Your task to perform on an android device: Toggle the flashlight Image 0: 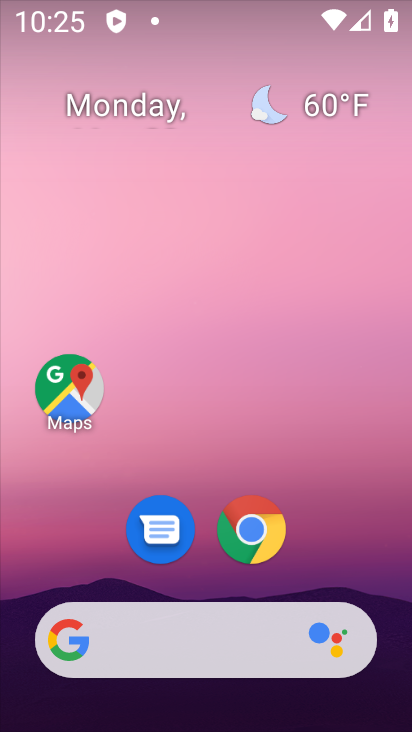
Step 0: drag from (320, 520) to (305, 68)
Your task to perform on an android device: Toggle the flashlight Image 1: 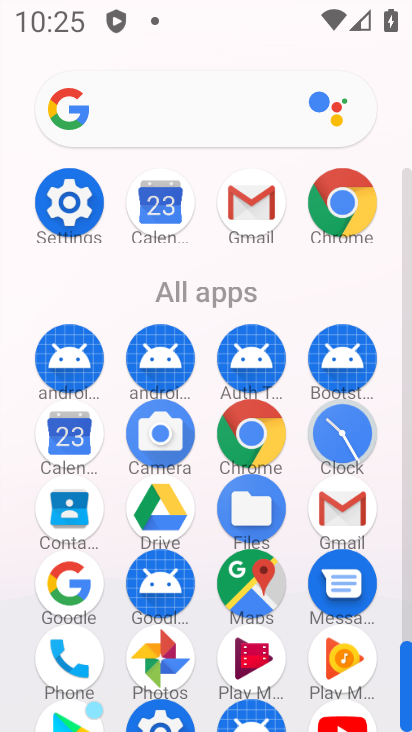
Step 1: click (72, 203)
Your task to perform on an android device: Toggle the flashlight Image 2: 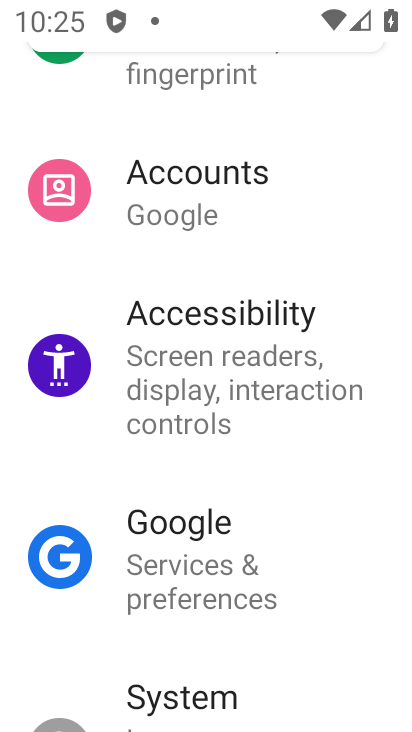
Step 2: drag from (290, 132) to (254, 520)
Your task to perform on an android device: Toggle the flashlight Image 3: 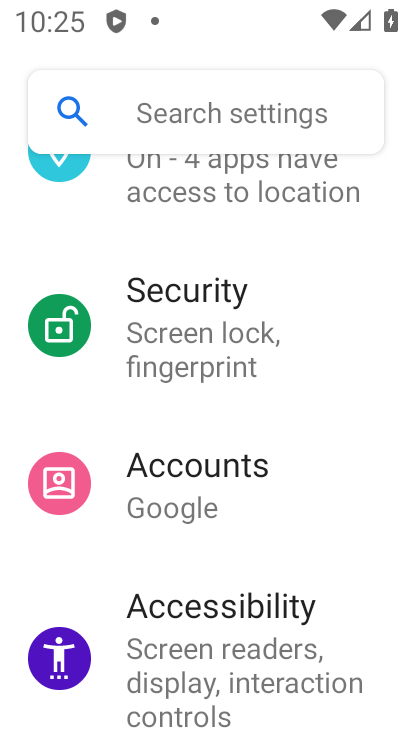
Step 3: drag from (277, 245) to (227, 720)
Your task to perform on an android device: Toggle the flashlight Image 4: 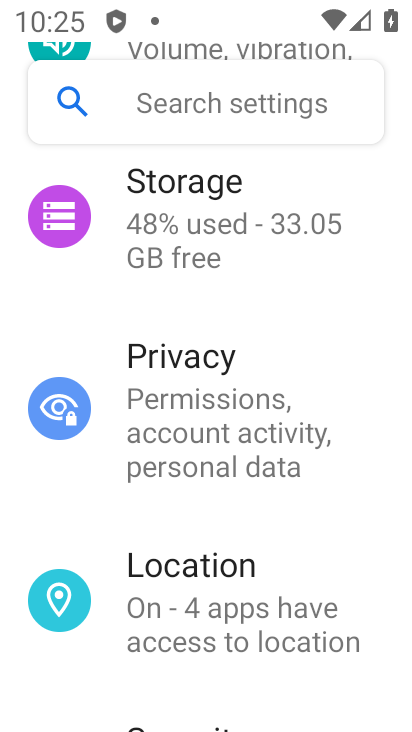
Step 4: drag from (323, 289) to (331, 704)
Your task to perform on an android device: Toggle the flashlight Image 5: 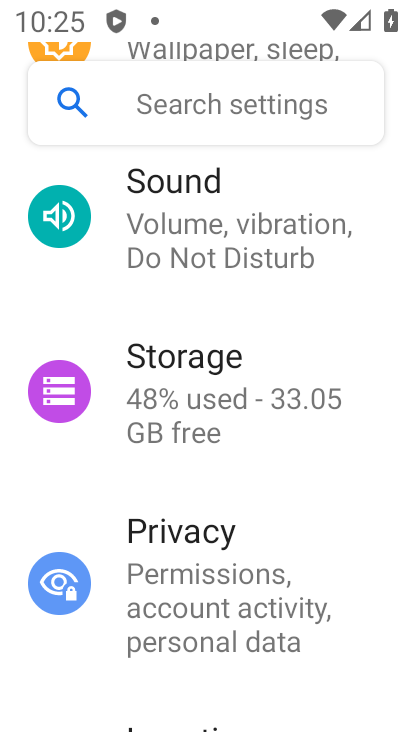
Step 5: drag from (311, 293) to (291, 659)
Your task to perform on an android device: Toggle the flashlight Image 6: 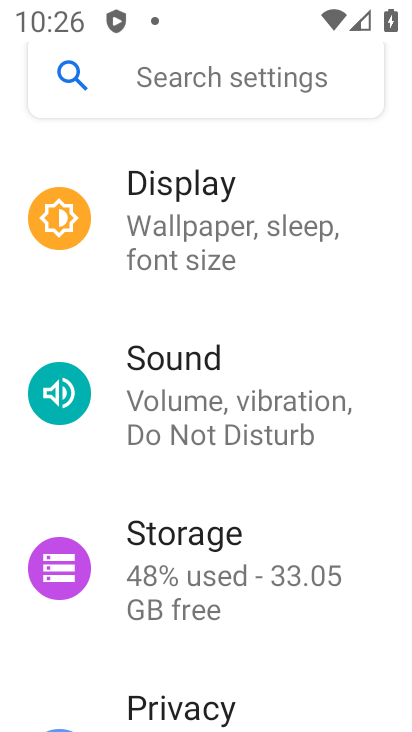
Step 6: click (199, 196)
Your task to perform on an android device: Toggle the flashlight Image 7: 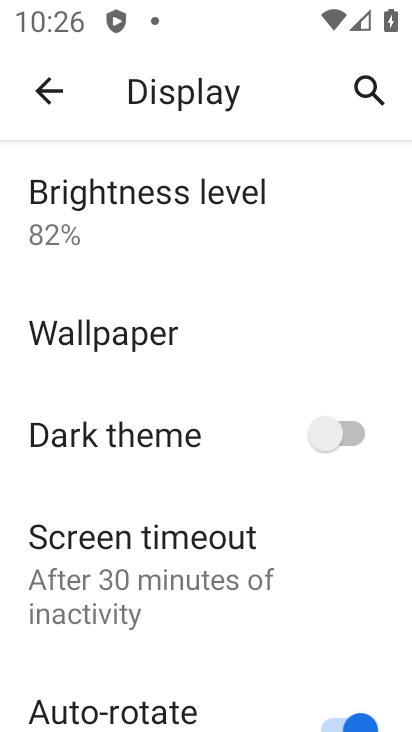
Step 7: drag from (229, 624) to (242, 230)
Your task to perform on an android device: Toggle the flashlight Image 8: 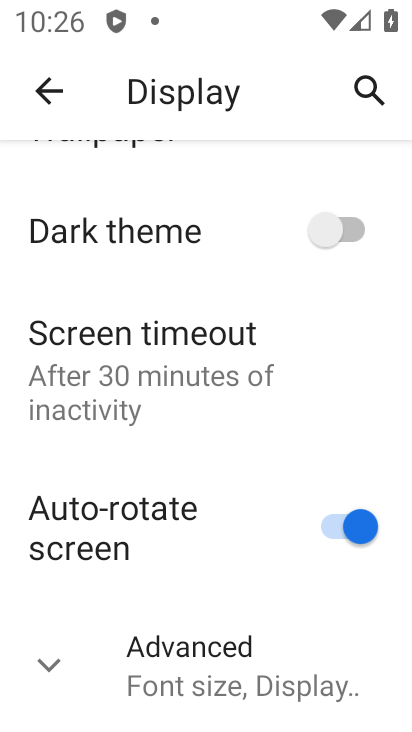
Step 8: click (237, 424)
Your task to perform on an android device: Toggle the flashlight Image 9: 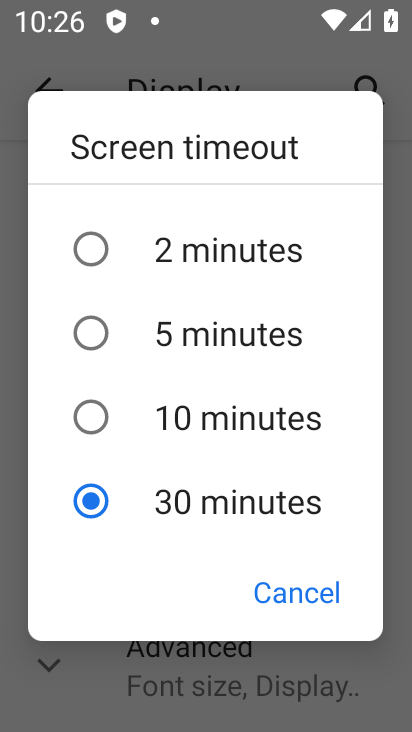
Step 9: click (269, 590)
Your task to perform on an android device: Toggle the flashlight Image 10: 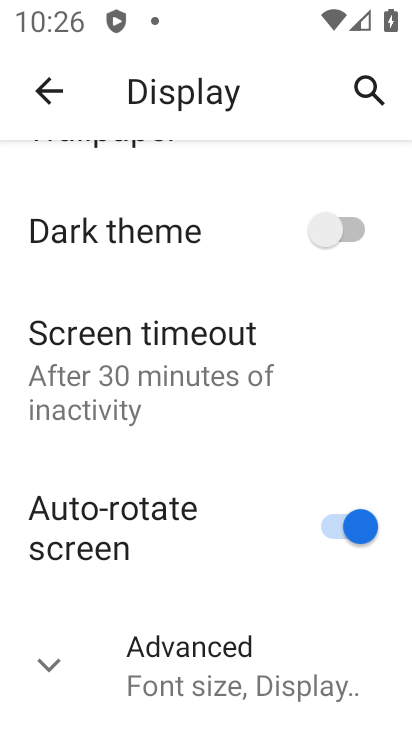
Step 10: task complete